Your task to perform on an android device: turn on sleep mode Image 0: 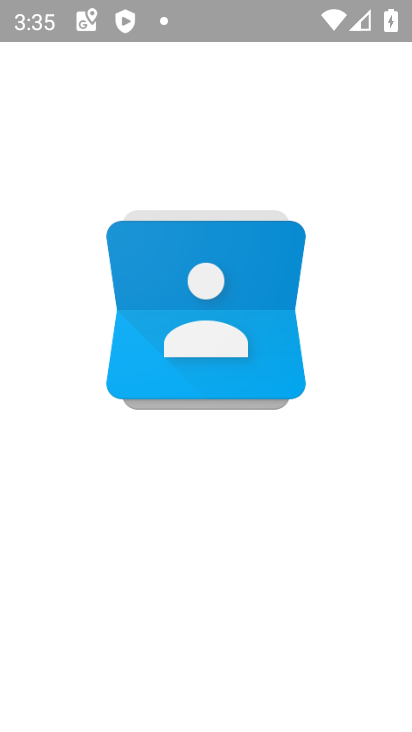
Step 0: click (260, 540)
Your task to perform on an android device: turn on sleep mode Image 1: 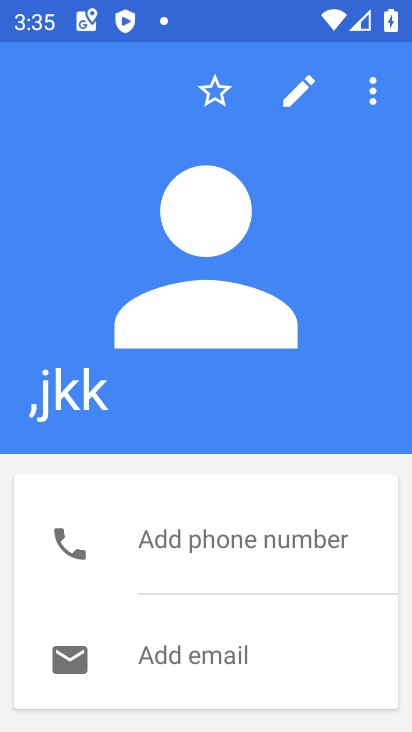
Step 1: press home button
Your task to perform on an android device: turn on sleep mode Image 2: 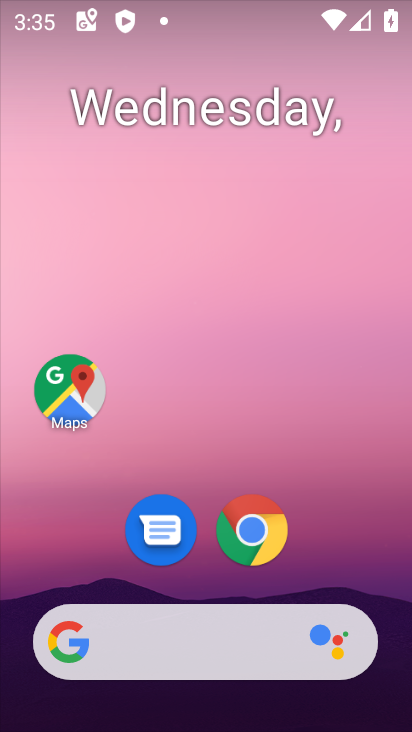
Step 2: drag from (334, 564) to (361, 121)
Your task to perform on an android device: turn on sleep mode Image 3: 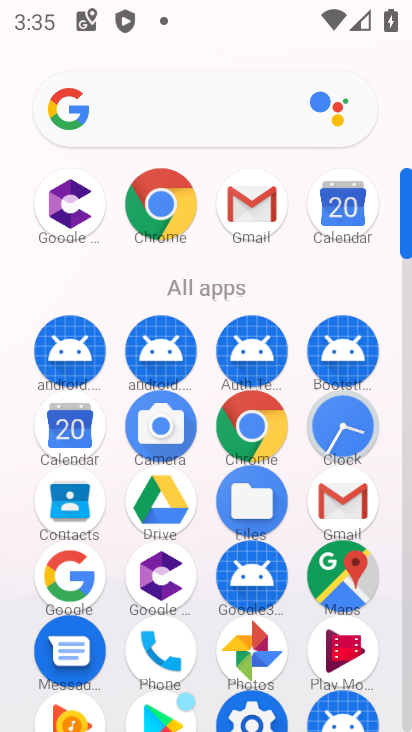
Step 3: click (249, 709)
Your task to perform on an android device: turn on sleep mode Image 4: 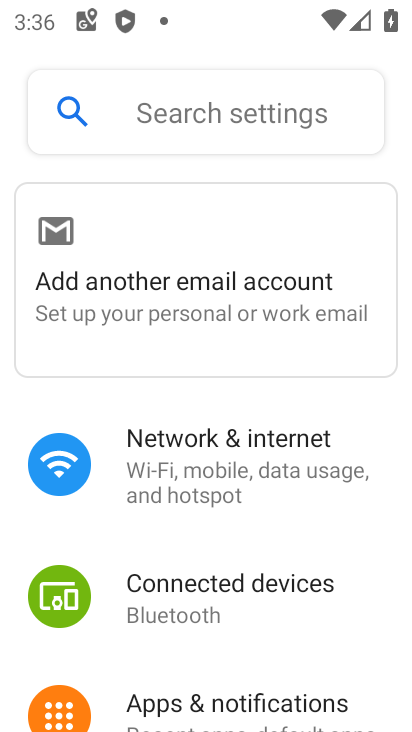
Step 4: drag from (342, 628) to (327, 232)
Your task to perform on an android device: turn on sleep mode Image 5: 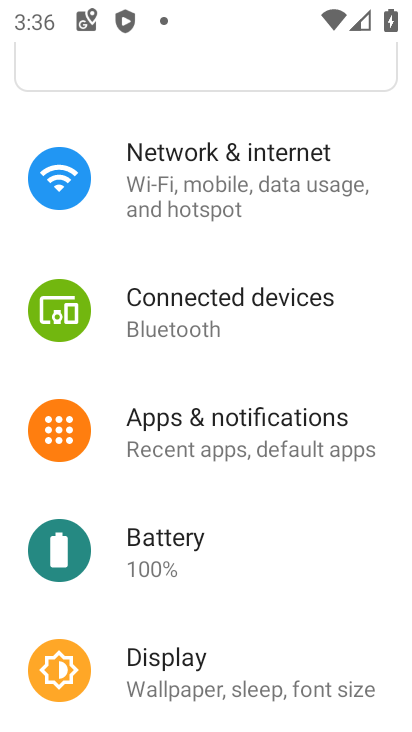
Step 5: click (155, 685)
Your task to perform on an android device: turn on sleep mode Image 6: 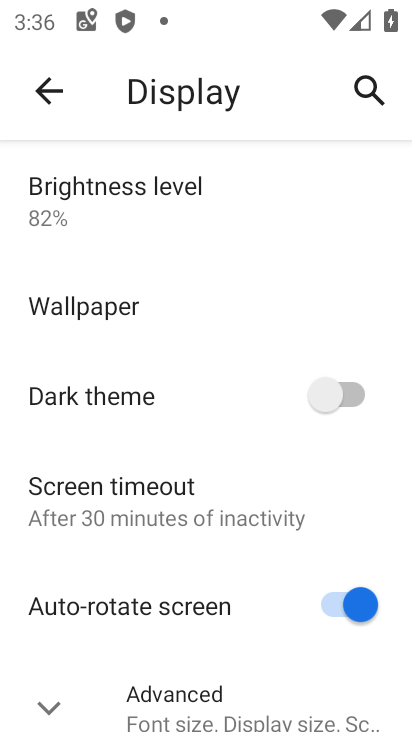
Step 6: click (146, 516)
Your task to perform on an android device: turn on sleep mode Image 7: 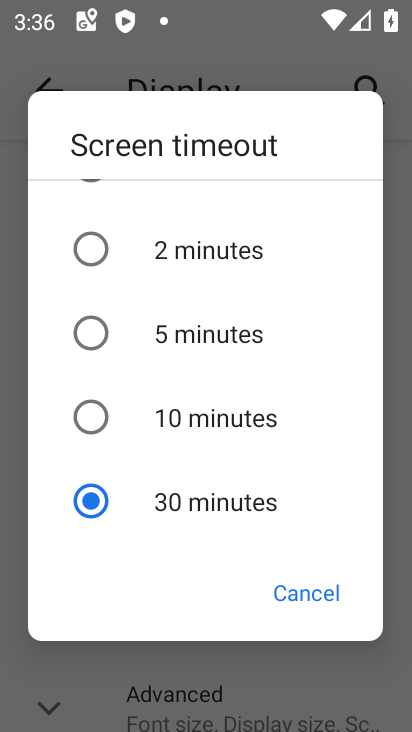
Step 7: click (181, 414)
Your task to perform on an android device: turn on sleep mode Image 8: 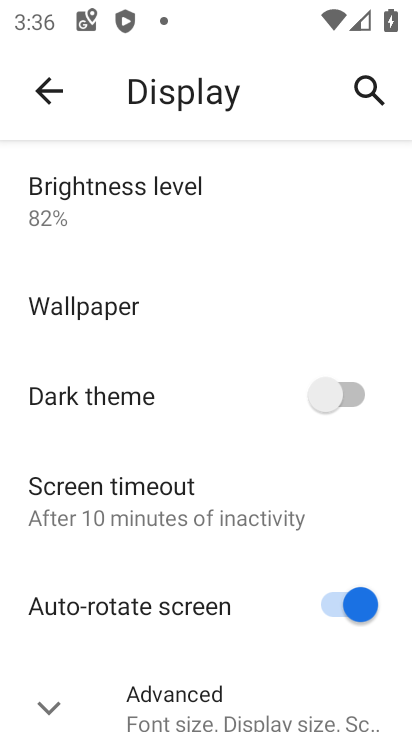
Step 8: task complete